Your task to perform on an android device: Check the news Image 0: 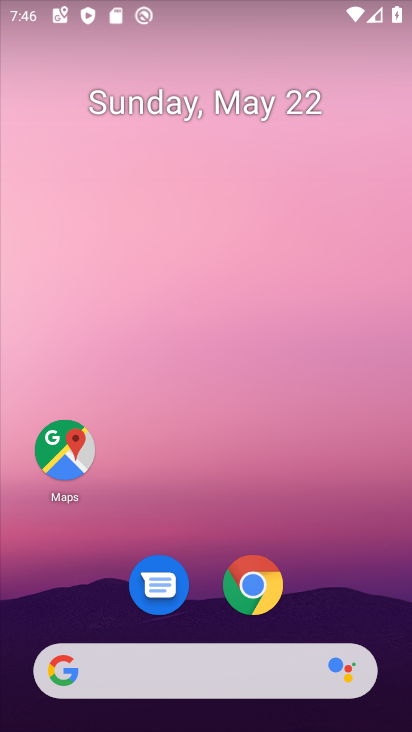
Step 0: click (257, 666)
Your task to perform on an android device: Check the news Image 1: 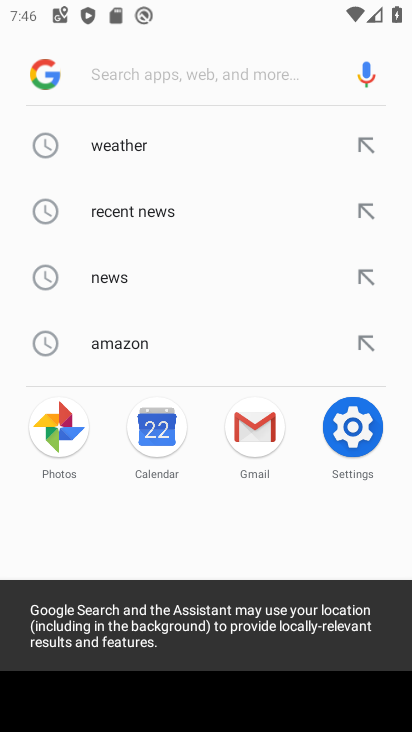
Step 1: click (71, 270)
Your task to perform on an android device: Check the news Image 2: 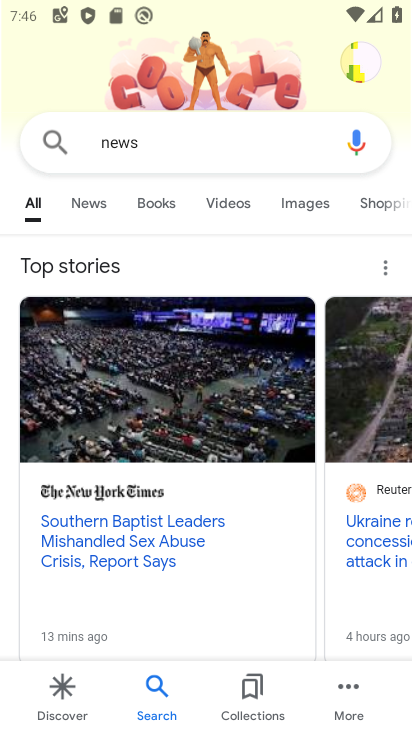
Step 2: click (79, 190)
Your task to perform on an android device: Check the news Image 3: 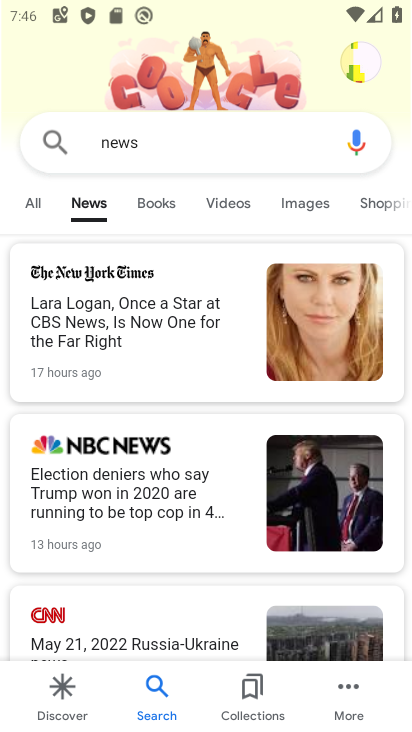
Step 3: task complete